Your task to perform on an android device: Open Yahoo.com Image 0: 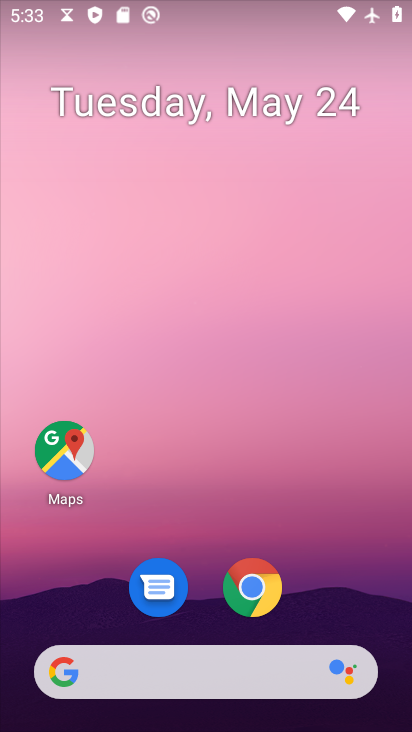
Step 0: click (261, 583)
Your task to perform on an android device: Open Yahoo.com Image 1: 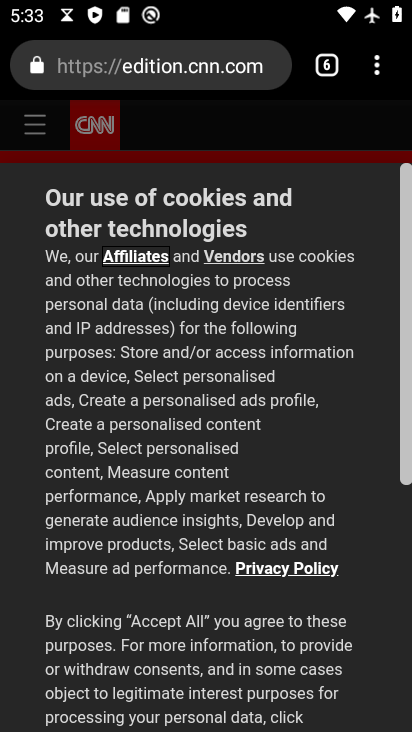
Step 1: click (325, 71)
Your task to perform on an android device: Open Yahoo.com Image 2: 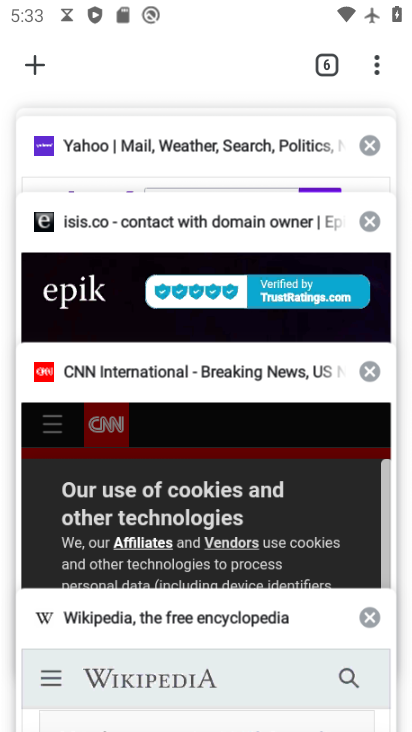
Step 2: click (134, 146)
Your task to perform on an android device: Open Yahoo.com Image 3: 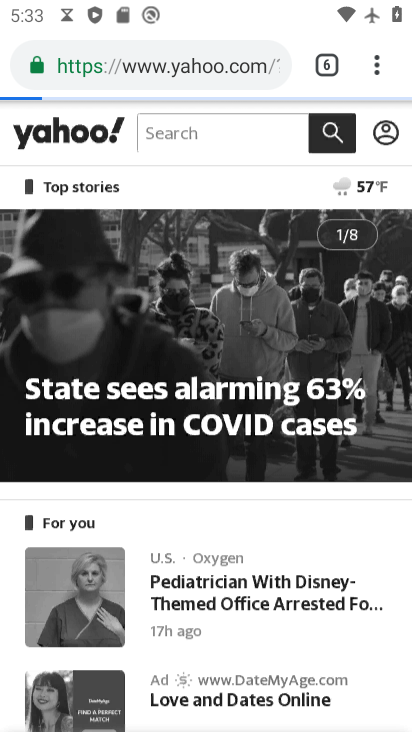
Step 3: task complete